Your task to perform on an android device: What's the weather? Image 0: 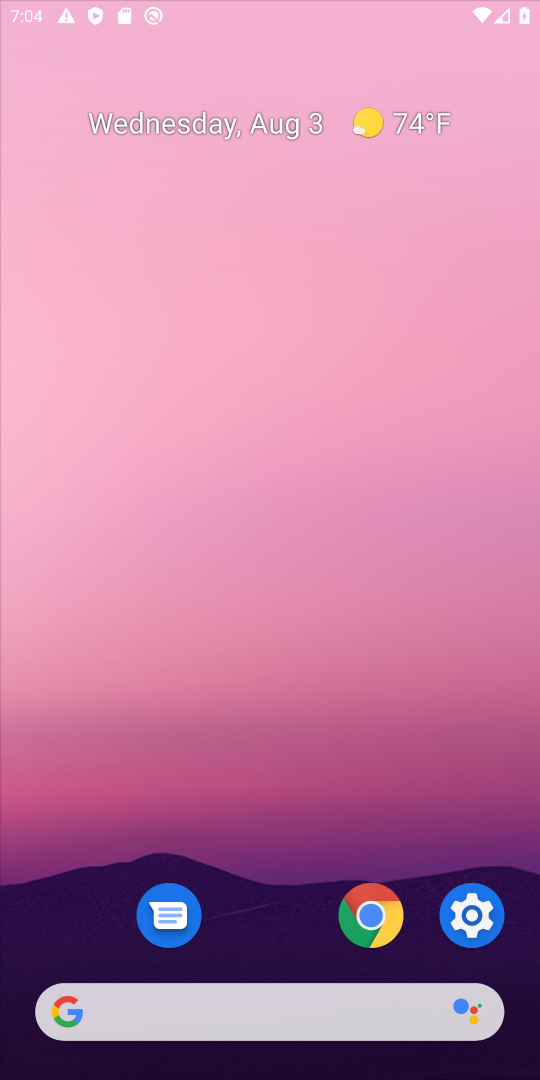
Step 0: press home button
Your task to perform on an android device: What's the weather? Image 1: 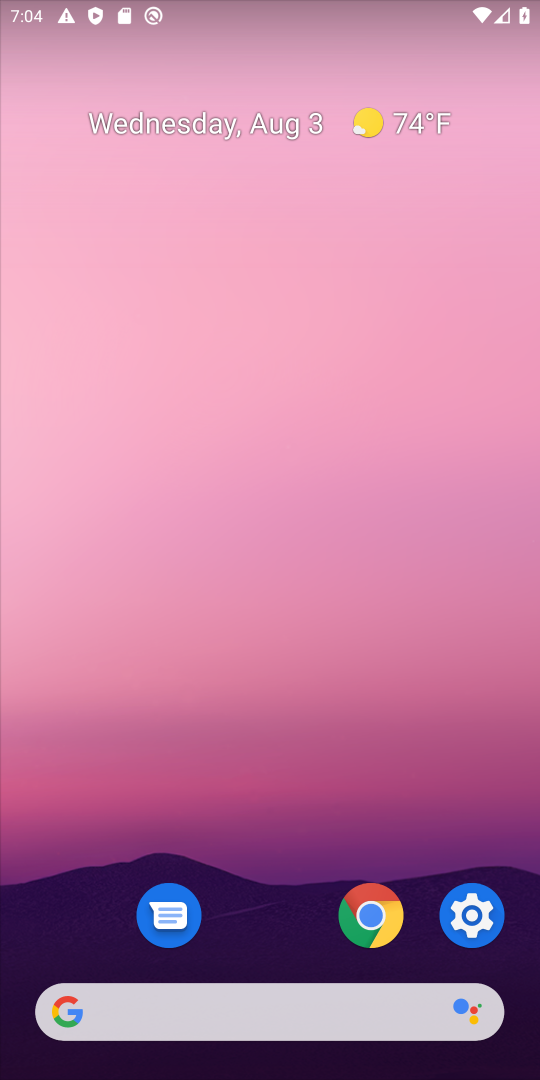
Step 1: click (206, 1034)
Your task to perform on an android device: What's the weather? Image 2: 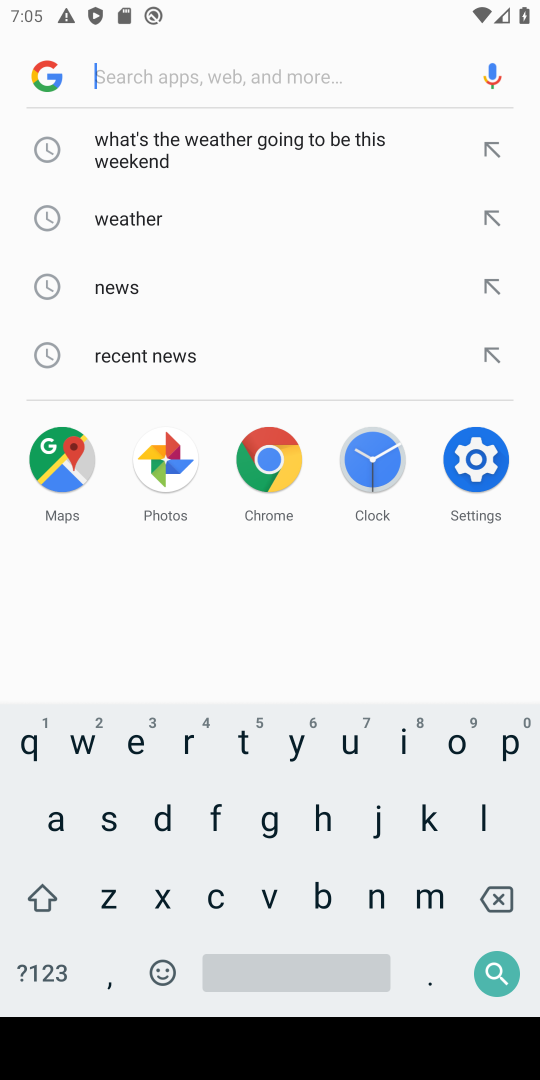
Step 2: click (160, 219)
Your task to perform on an android device: What's the weather? Image 3: 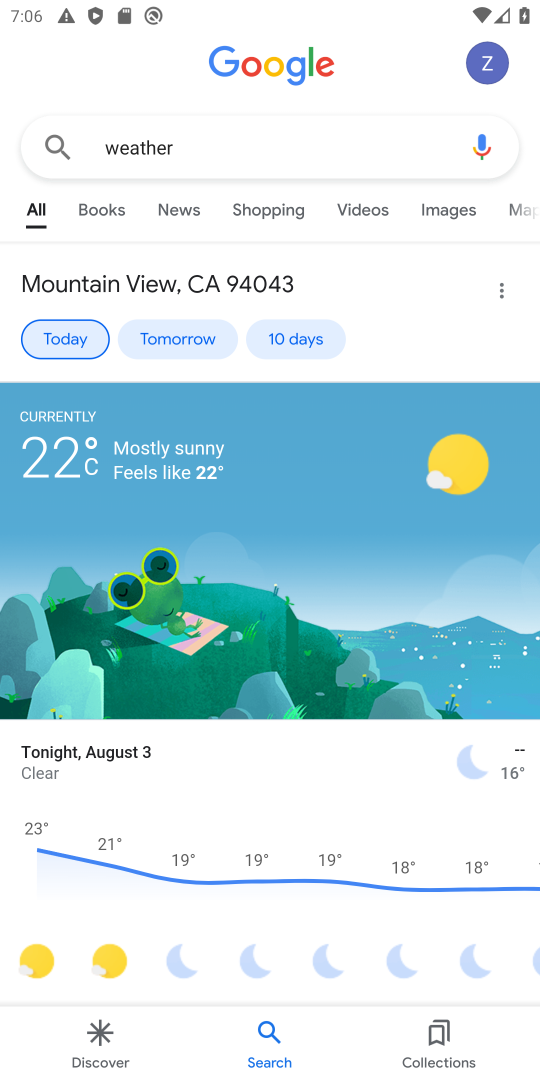
Step 3: task complete